Your task to perform on an android device: snooze an email in the gmail app Image 0: 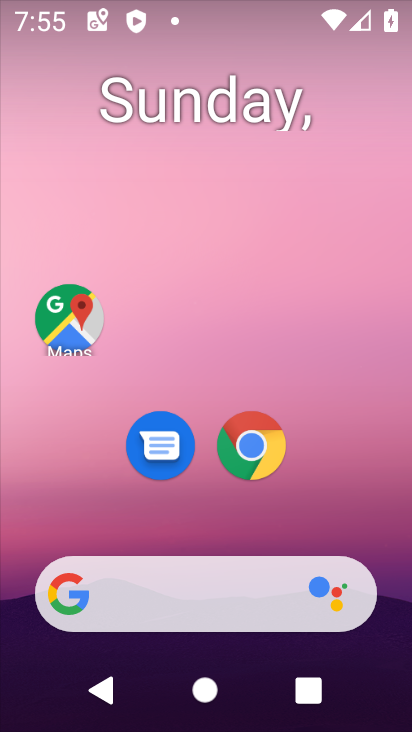
Step 0: drag from (244, 526) to (372, 27)
Your task to perform on an android device: snooze an email in the gmail app Image 1: 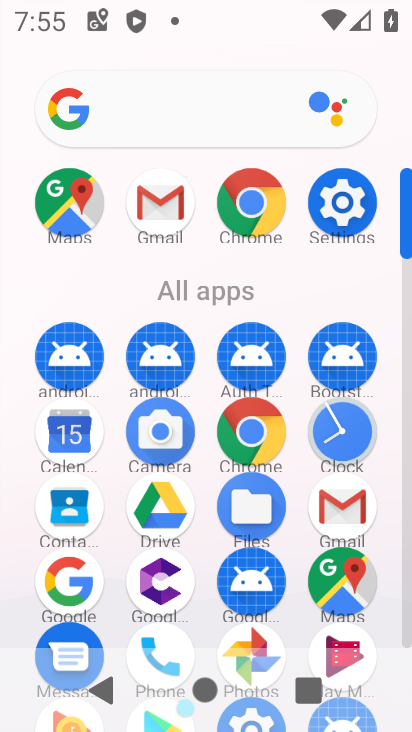
Step 1: click (337, 515)
Your task to perform on an android device: snooze an email in the gmail app Image 2: 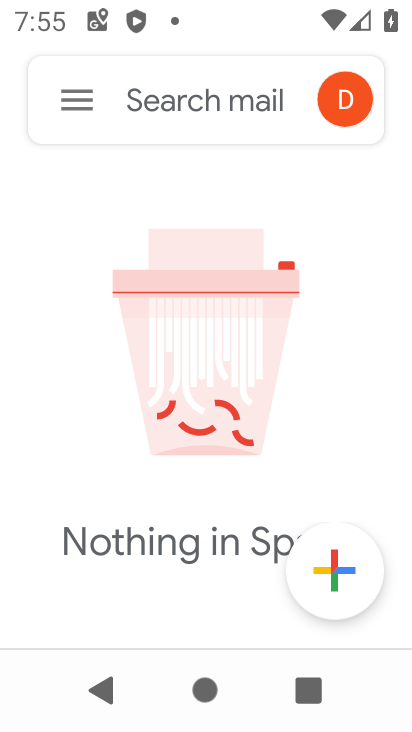
Step 2: click (61, 105)
Your task to perform on an android device: snooze an email in the gmail app Image 3: 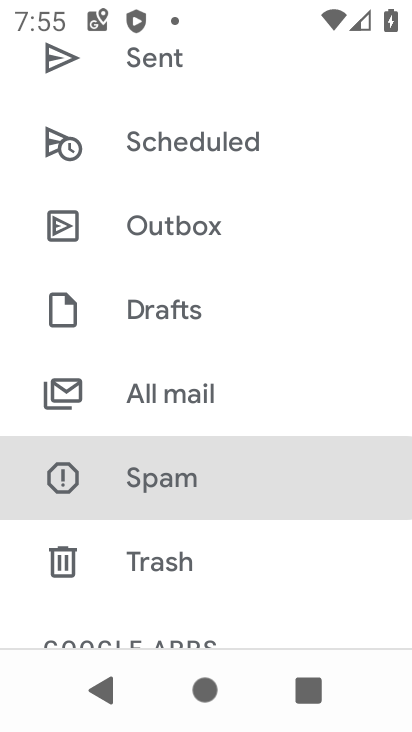
Step 3: click (174, 411)
Your task to perform on an android device: snooze an email in the gmail app Image 4: 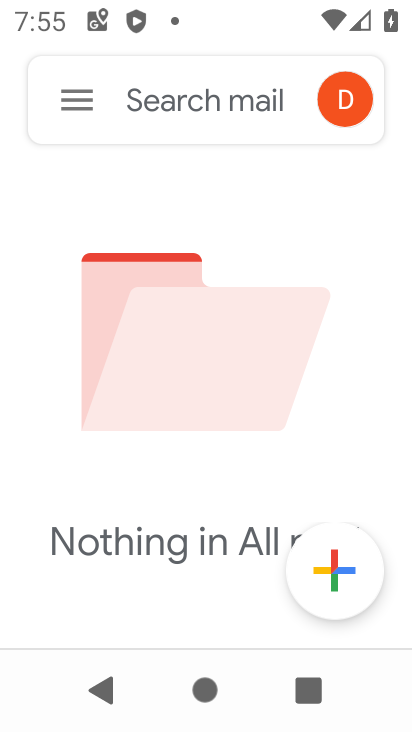
Step 4: task complete